Your task to perform on an android device: turn vacation reply on in the gmail app Image 0: 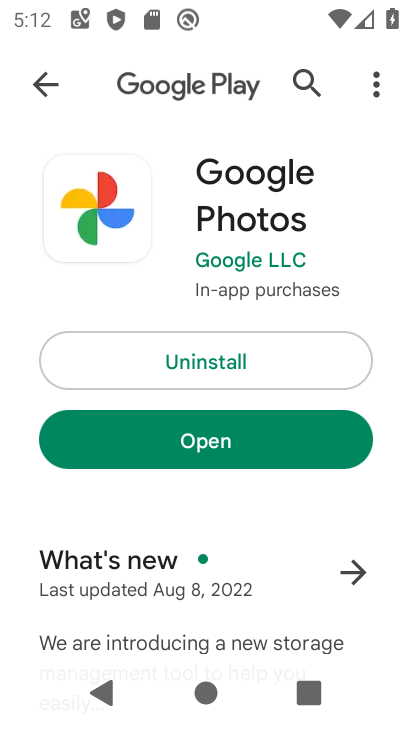
Step 0: drag from (172, 544) to (141, 4)
Your task to perform on an android device: turn vacation reply on in the gmail app Image 1: 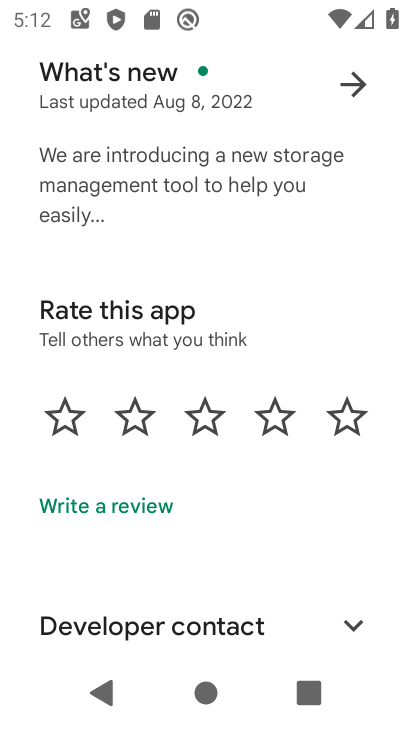
Step 1: press home button
Your task to perform on an android device: turn vacation reply on in the gmail app Image 2: 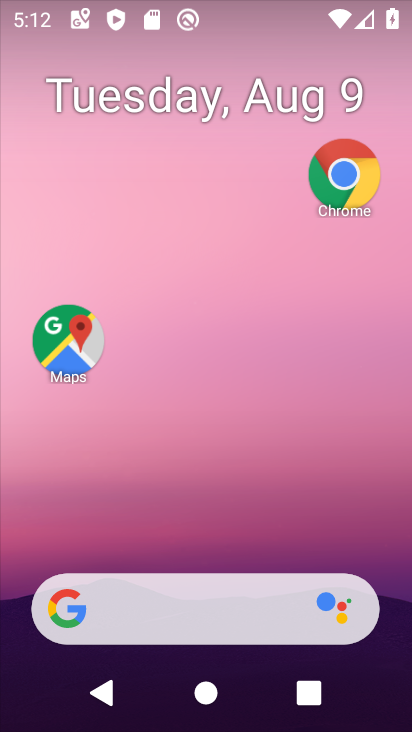
Step 2: drag from (235, 557) to (284, 129)
Your task to perform on an android device: turn vacation reply on in the gmail app Image 3: 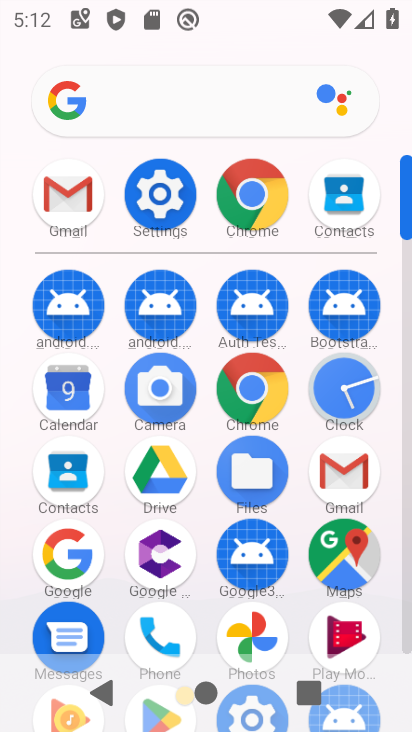
Step 3: click (353, 463)
Your task to perform on an android device: turn vacation reply on in the gmail app Image 4: 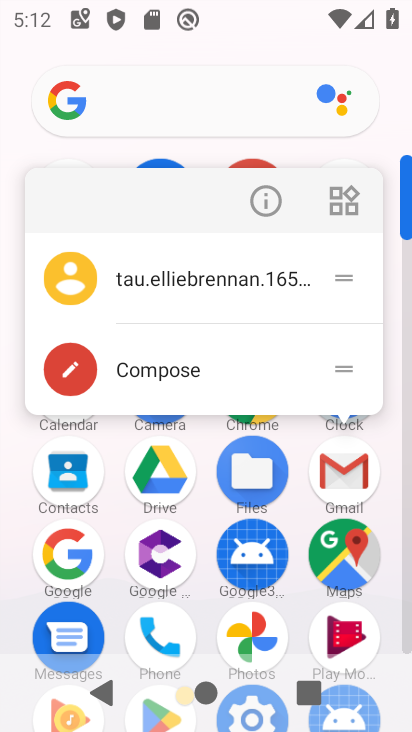
Step 4: click (275, 194)
Your task to perform on an android device: turn vacation reply on in the gmail app Image 5: 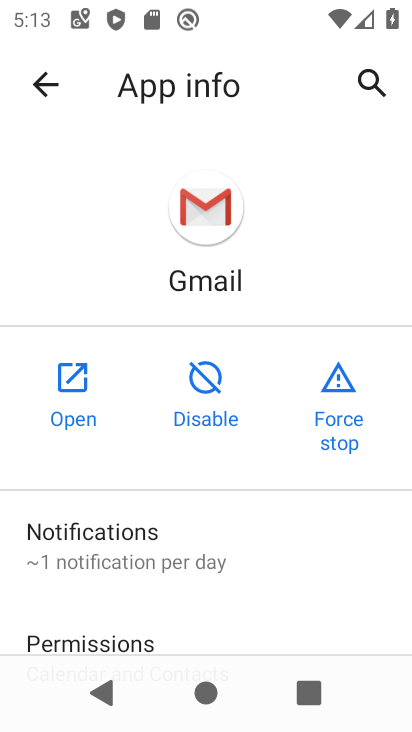
Step 5: click (70, 395)
Your task to perform on an android device: turn vacation reply on in the gmail app Image 6: 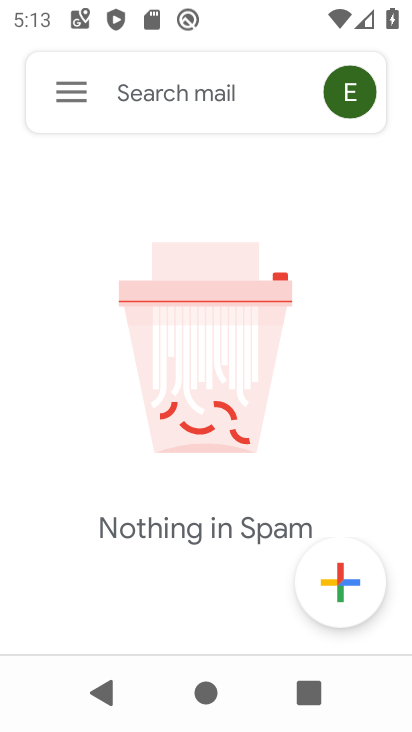
Step 6: click (52, 93)
Your task to perform on an android device: turn vacation reply on in the gmail app Image 7: 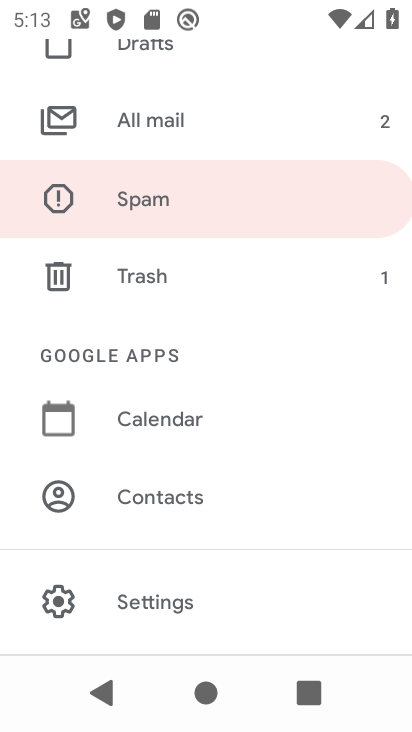
Step 7: click (145, 612)
Your task to perform on an android device: turn vacation reply on in the gmail app Image 8: 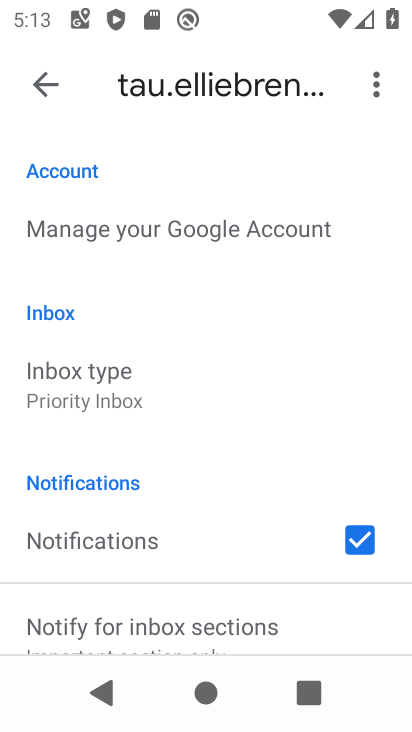
Step 8: drag from (167, 600) to (231, 88)
Your task to perform on an android device: turn vacation reply on in the gmail app Image 9: 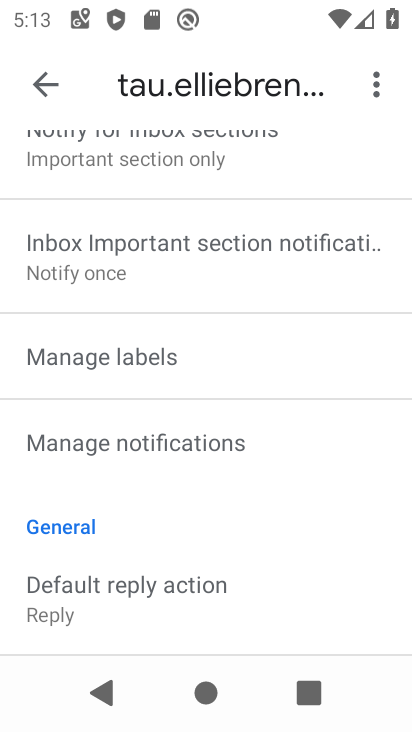
Step 9: drag from (242, 501) to (395, 20)
Your task to perform on an android device: turn vacation reply on in the gmail app Image 10: 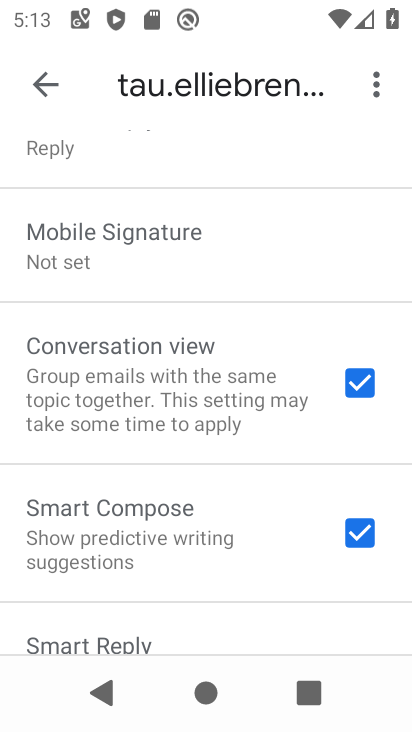
Step 10: drag from (161, 570) to (232, 217)
Your task to perform on an android device: turn vacation reply on in the gmail app Image 11: 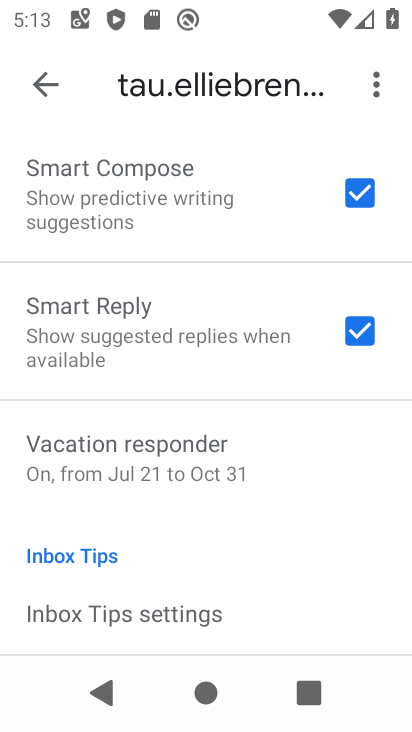
Step 11: click (148, 460)
Your task to perform on an android device: turn vacation reply on in the gmail app Image 12: 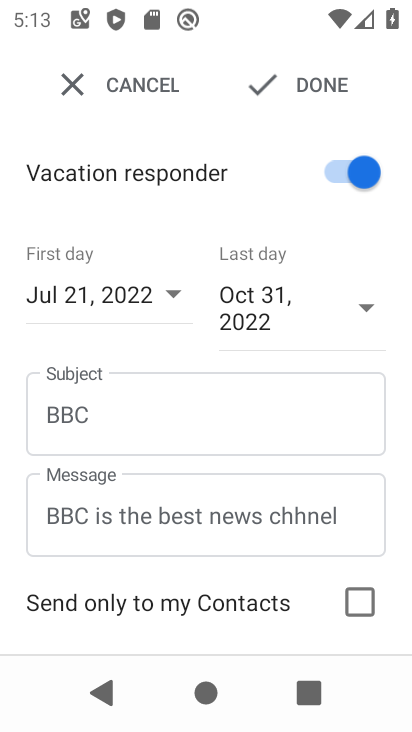
Step 12: click (274, 78)
Your task to perform on an android device: turn vacation reply on in the gmail app Image 13: 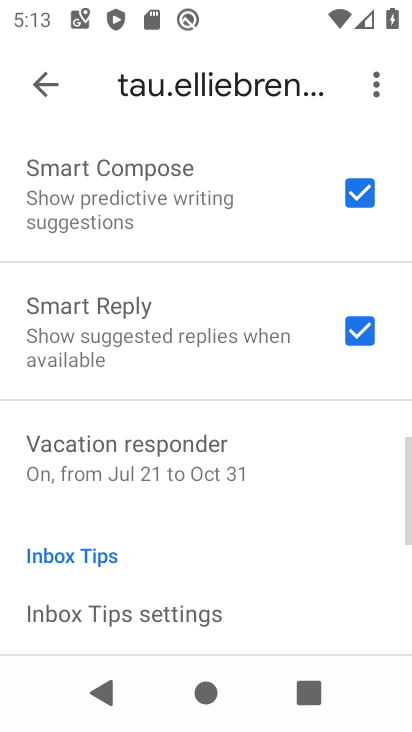
Step 13: task complete